Your task to perform on an android device: Is it going to rain today? Image 0: 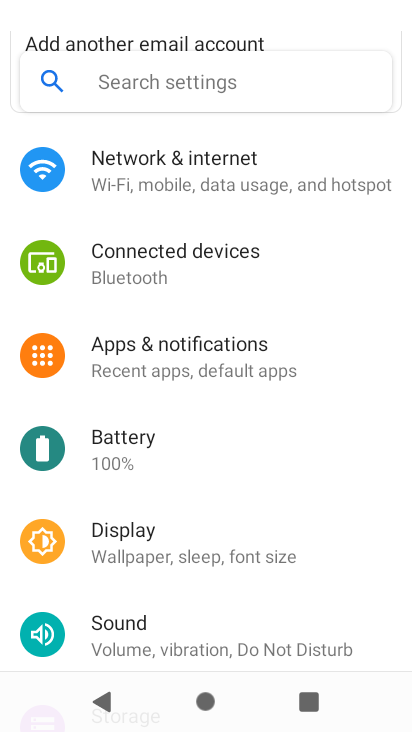
Step 0: press home button
Your task to perform on an android device: Is it going to rain today? Image 1: 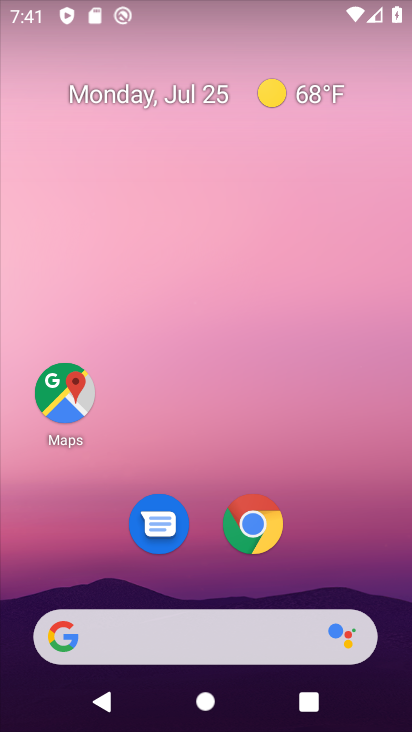
Step 1: click (235, 632)
Your task to perform on an android device: Is it going to rain today? Image 2: 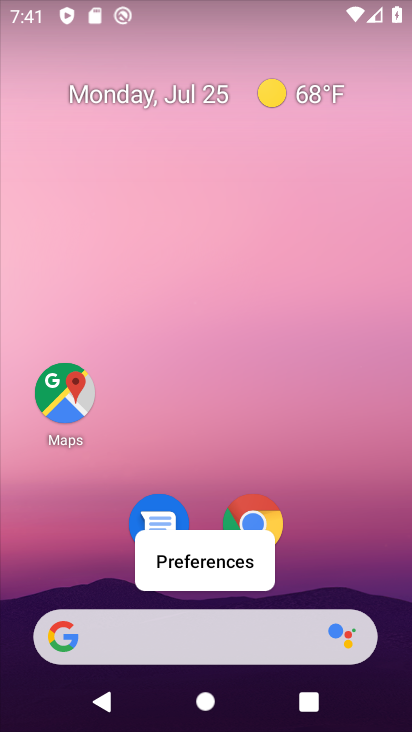
Step 2: click (183, 639)
Your task to perform on an android device: Is it going to rain today? Image 3: 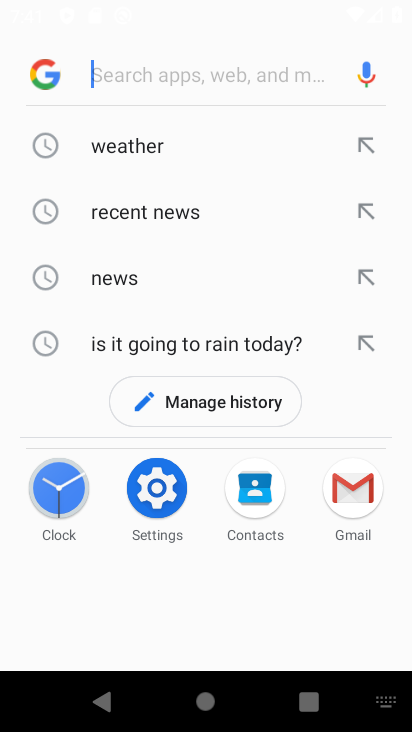
Step 3: click (134, 147)
Your task to perform on an android device: Is it going to rain today? Image 4: 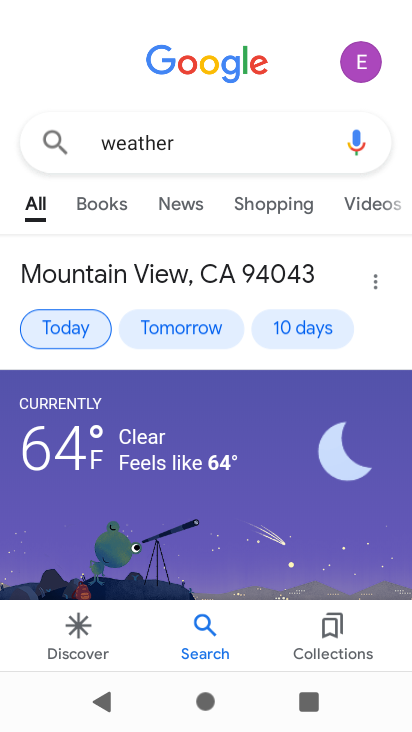
Step 4: click (82, 328)
Your task to perform on an android device: Is it going to rain today? Image 5: 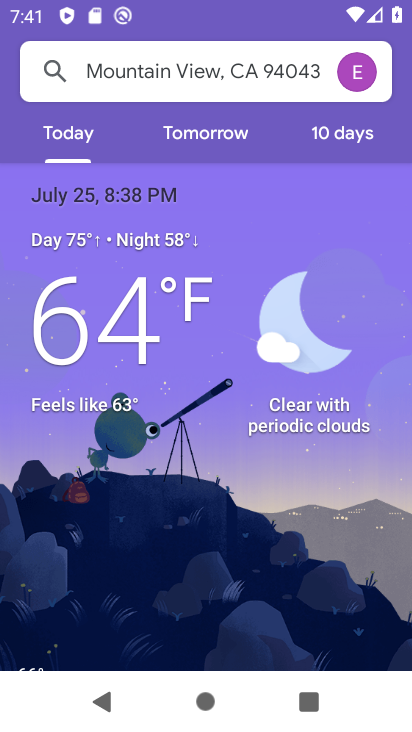
Step 5: task complete